Your task to perform on an android device: Open location settings Image 0: 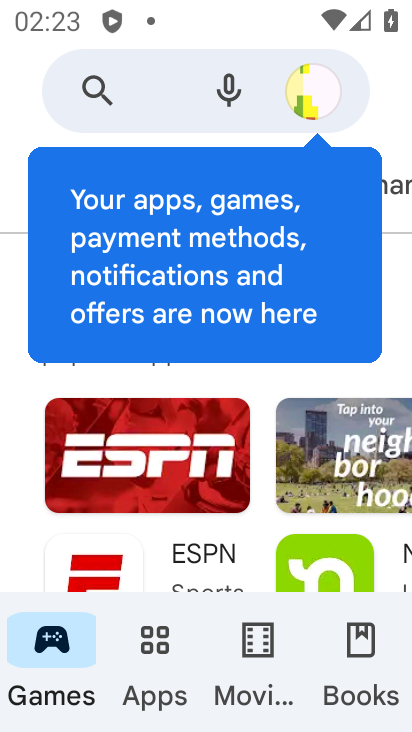
Step 0: press home button
Your task to perform on an android device: Open location settings Image 1: 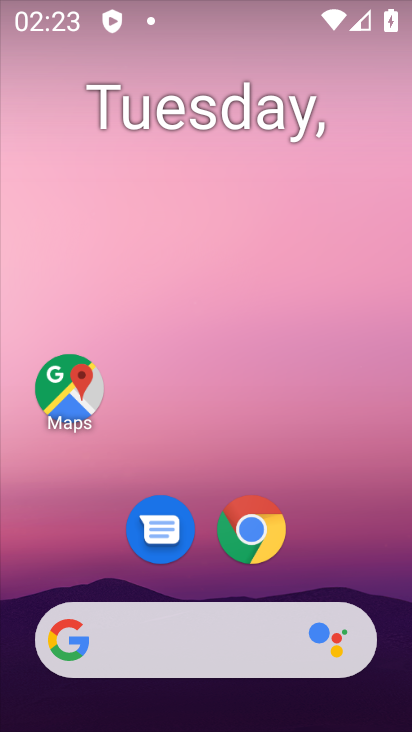
Step 1: drag from (218, 575) to (240, 13)
Your task to perform on an android device: Open location settings Image 2: 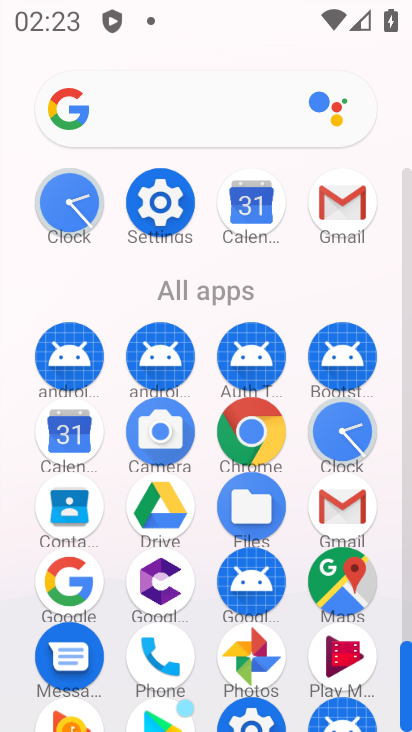
Step 2: click (150, 194)
Your task to perform on an android device: Open location settings Image 3: 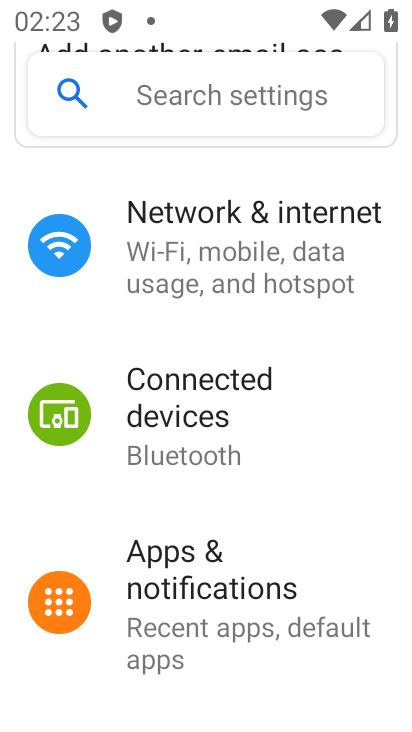
Step 3: drag from (186, 558) to (231, 237)
Your task to perform on an android device: Open location settings Image 4: 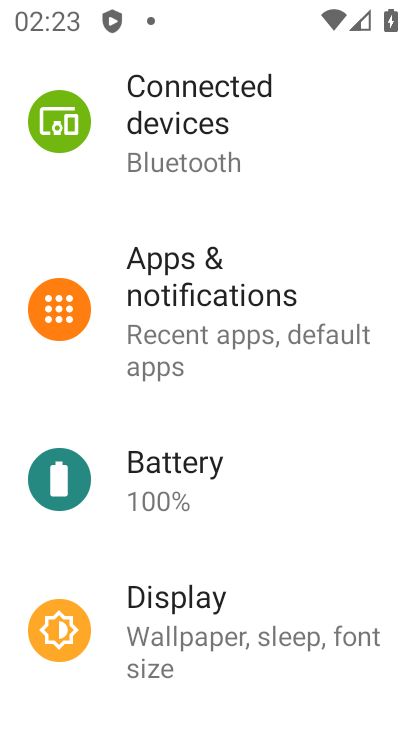
Step 4: drag from (226, 587) to (221, 250)
Your task to perform on an android device: Open location settings Image 5: 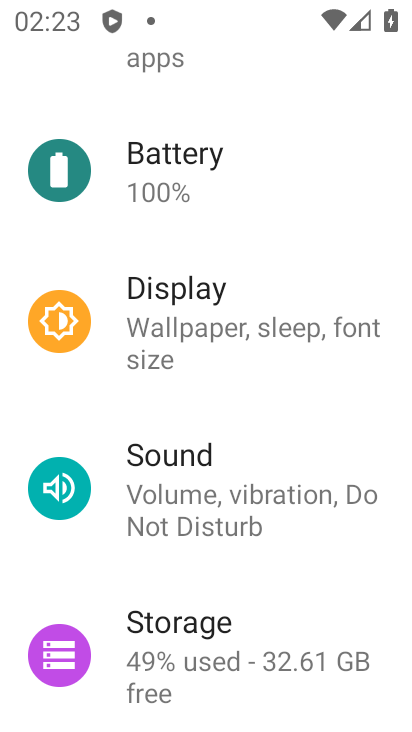
Step 5: drag from (222, 584) to (238, 266)
Your task to perform on an android device: Open location settings Image 6: 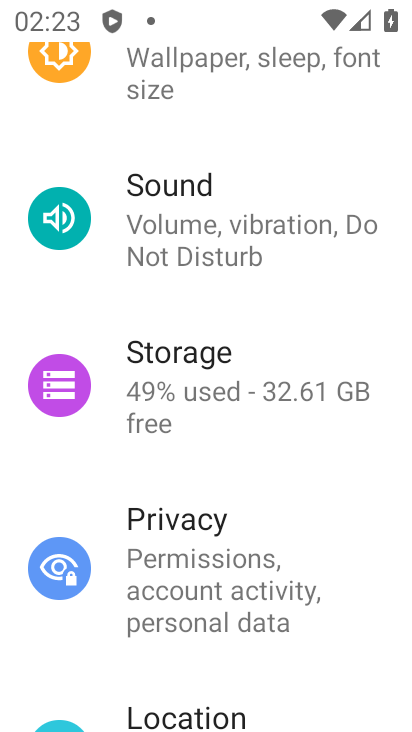
Step 6: drag from (219, 630) to (237, 368)
Your task to perform on an android device: Open location settings Image 7: 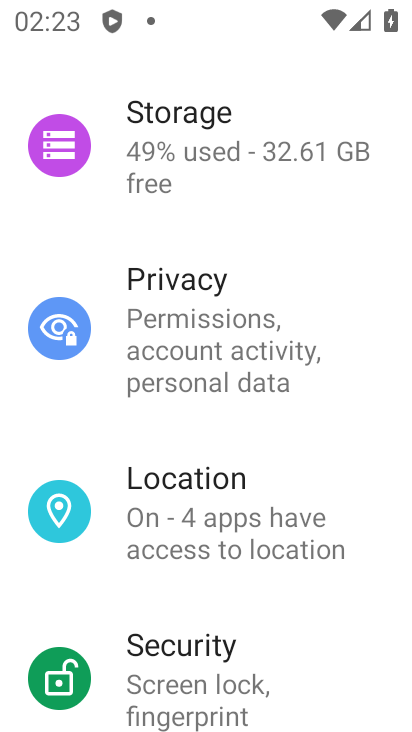
Step 7: click (229, 538)
Your task to perform on an android device: Open location settings Image 8: 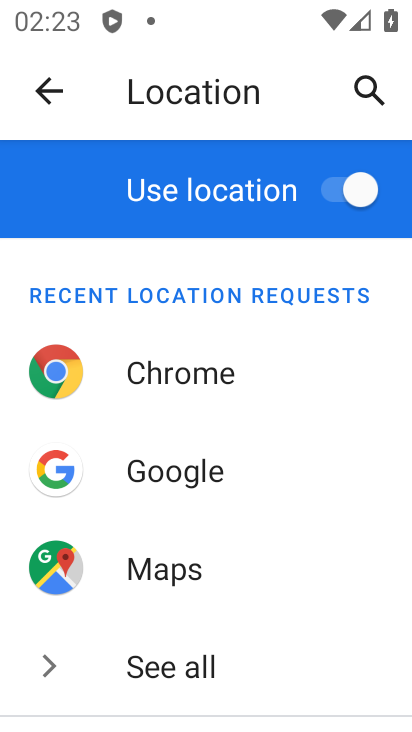
Step 8: task complete